Your task to perform on an android device: uninstall "Microsoft Outlook" Image 0: 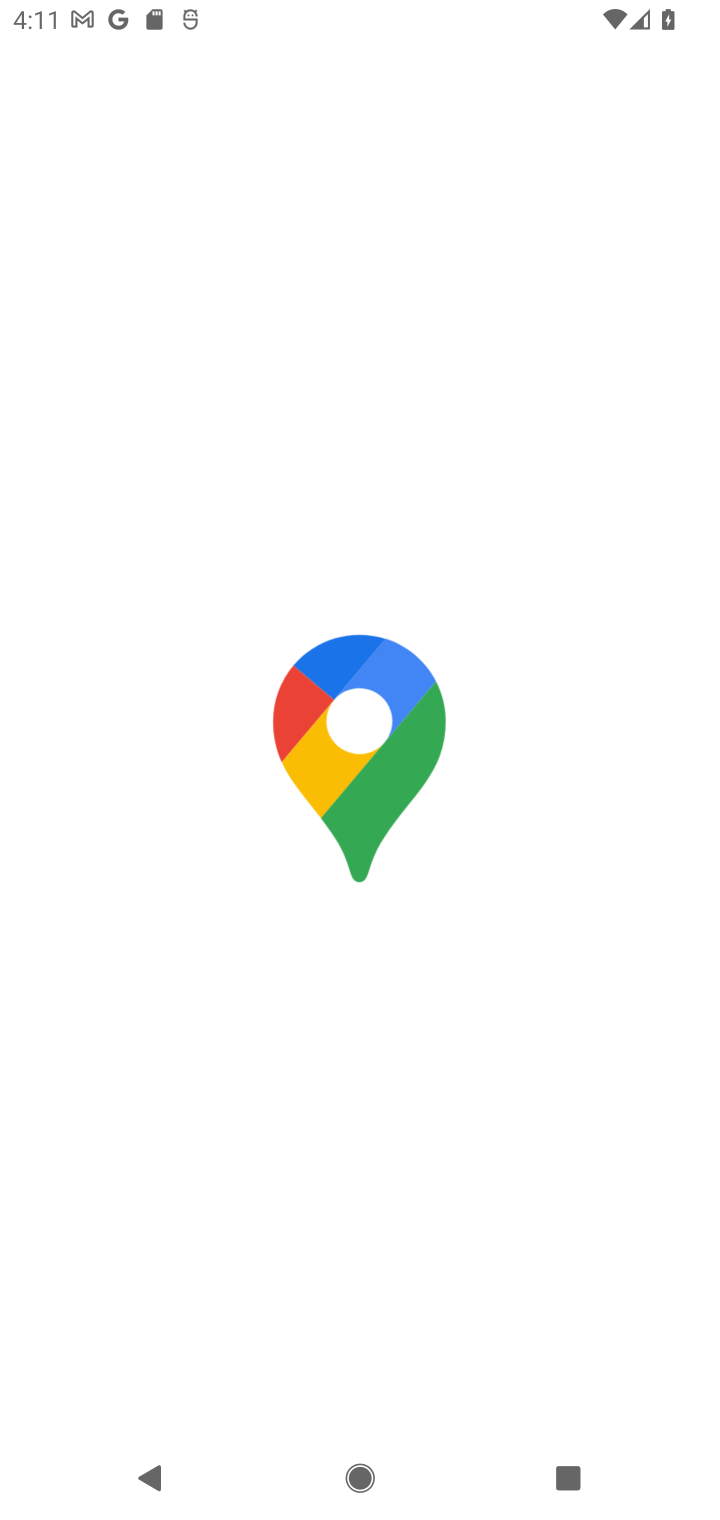
Step 0: press home button
Your task to perform on an android device: uninstall "Microsoft Outlook" Image 1: 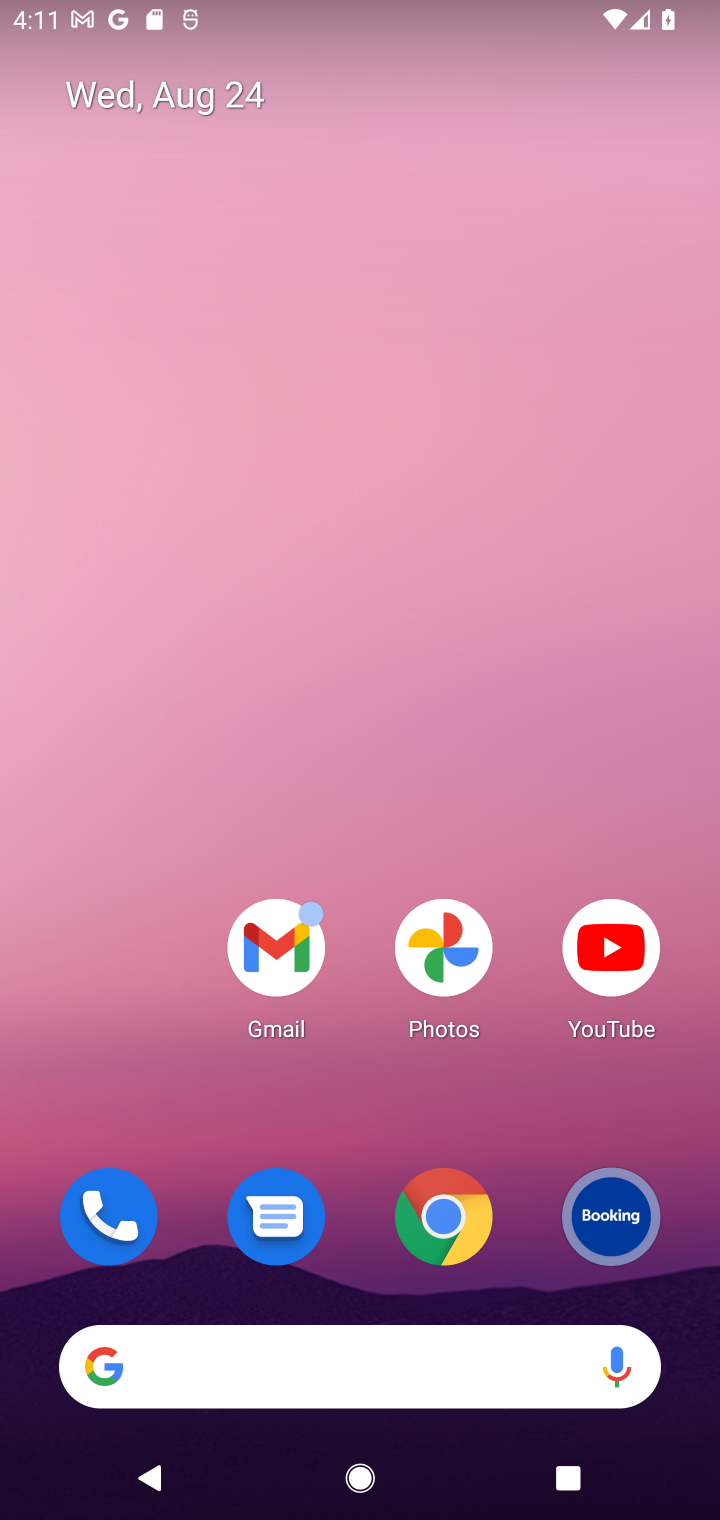
Step 1: drag from (357, 869) to (357, 187)
Your task to perform on an android device: uninstall "Microsoft Outlook" Image 2: 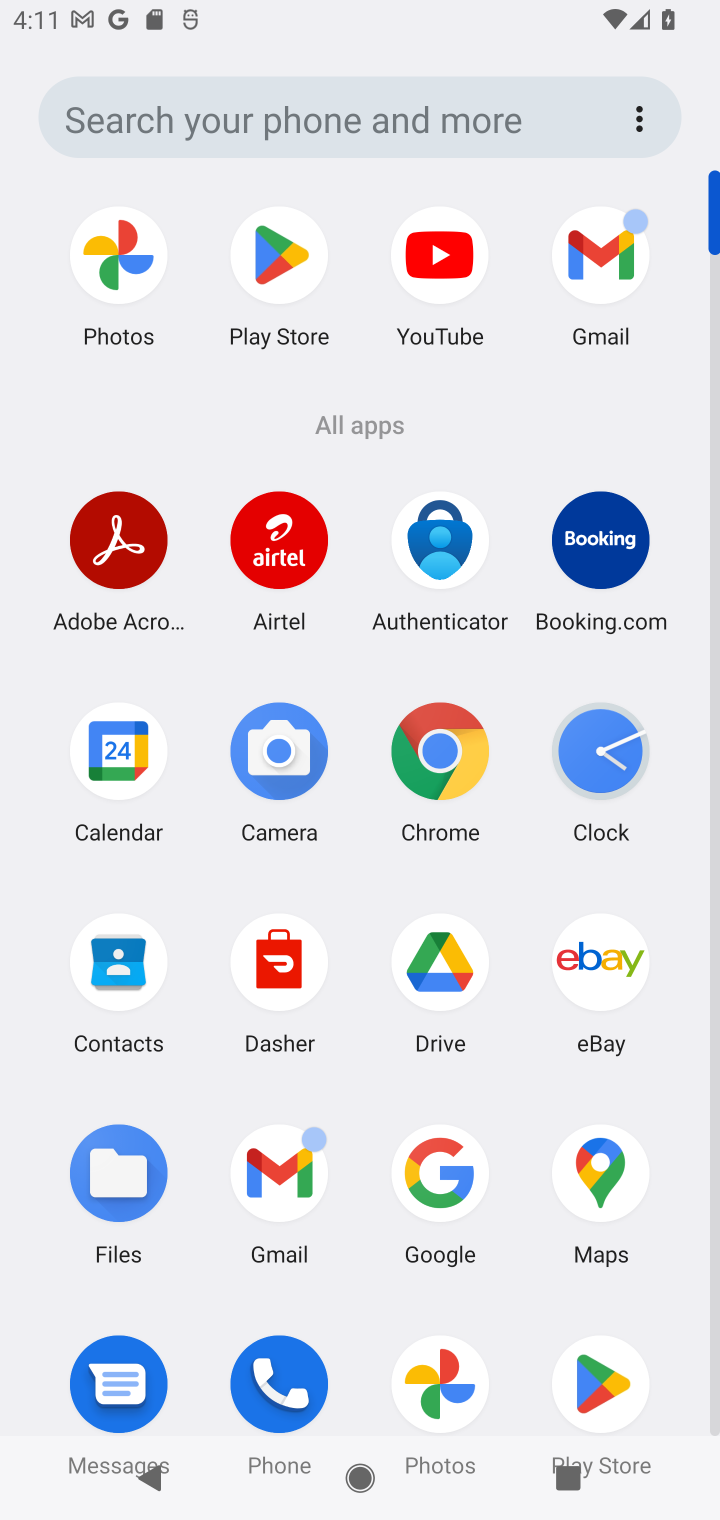
Step 2: click (269, 278)
Your task to perform on an android device: uninstall "Microsoft Outlook" Image 3: 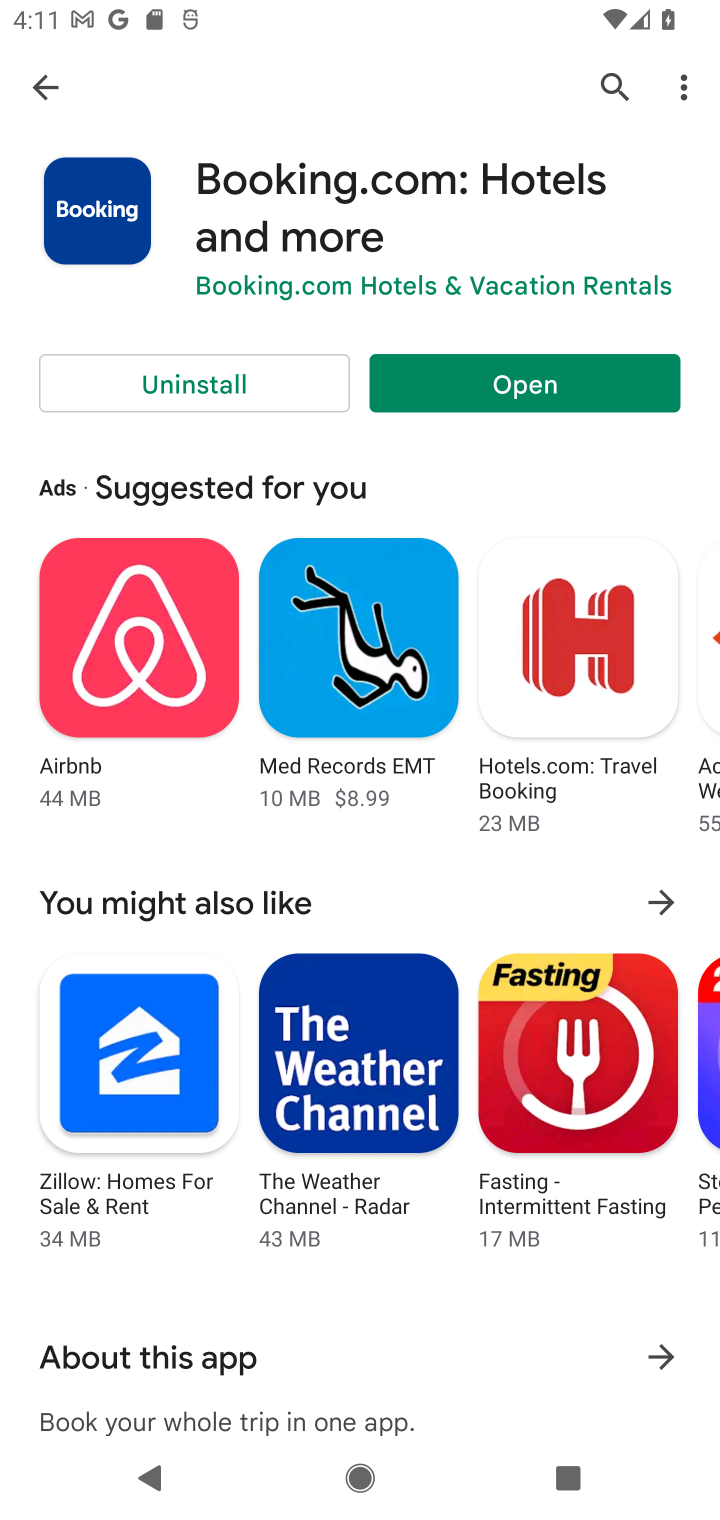
Step 3: click (601, 79)
Your task to perform on an android device: uninstall "Microsoft Outlook" Image 4: 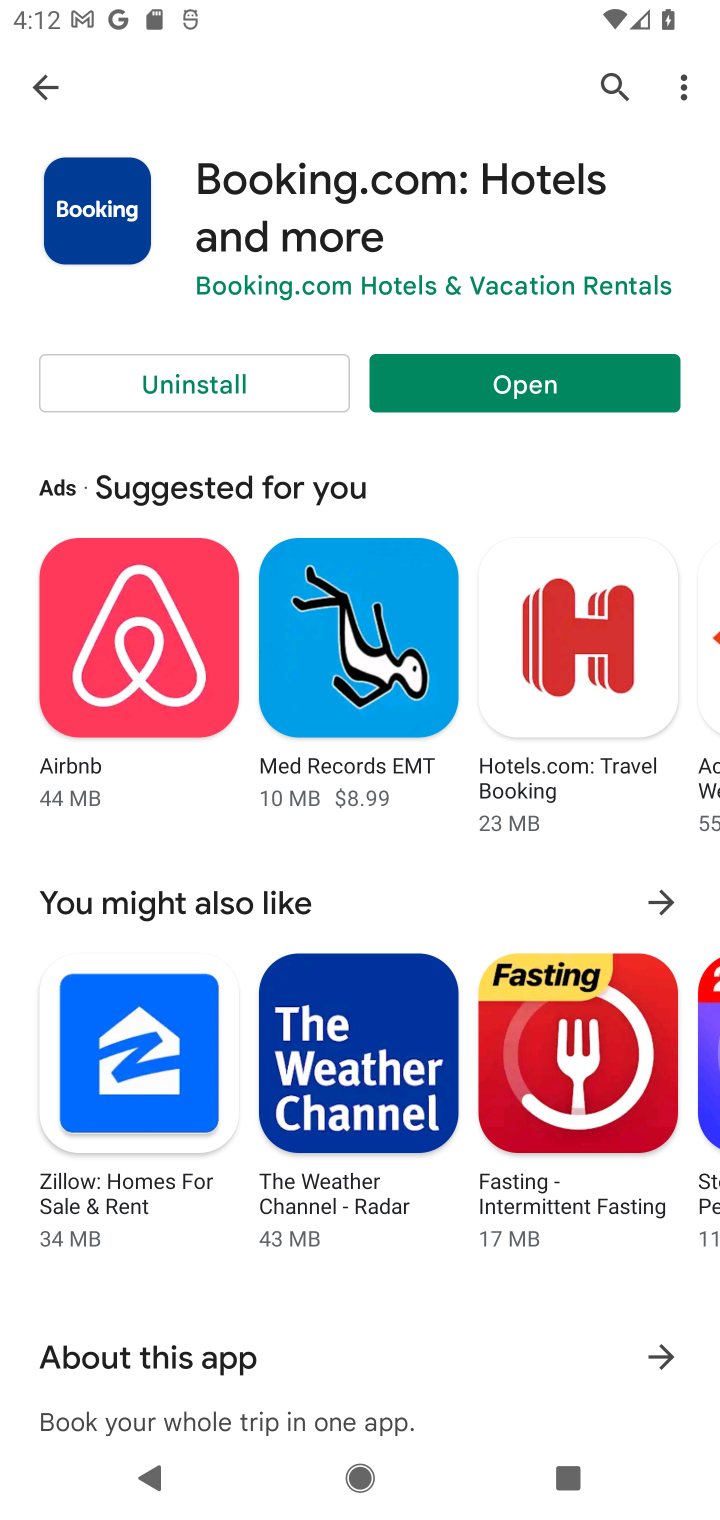
Step 4: click (191, 386)
Your task to perform on an android device: uninstall "Microsoft Outlook" Image 5: 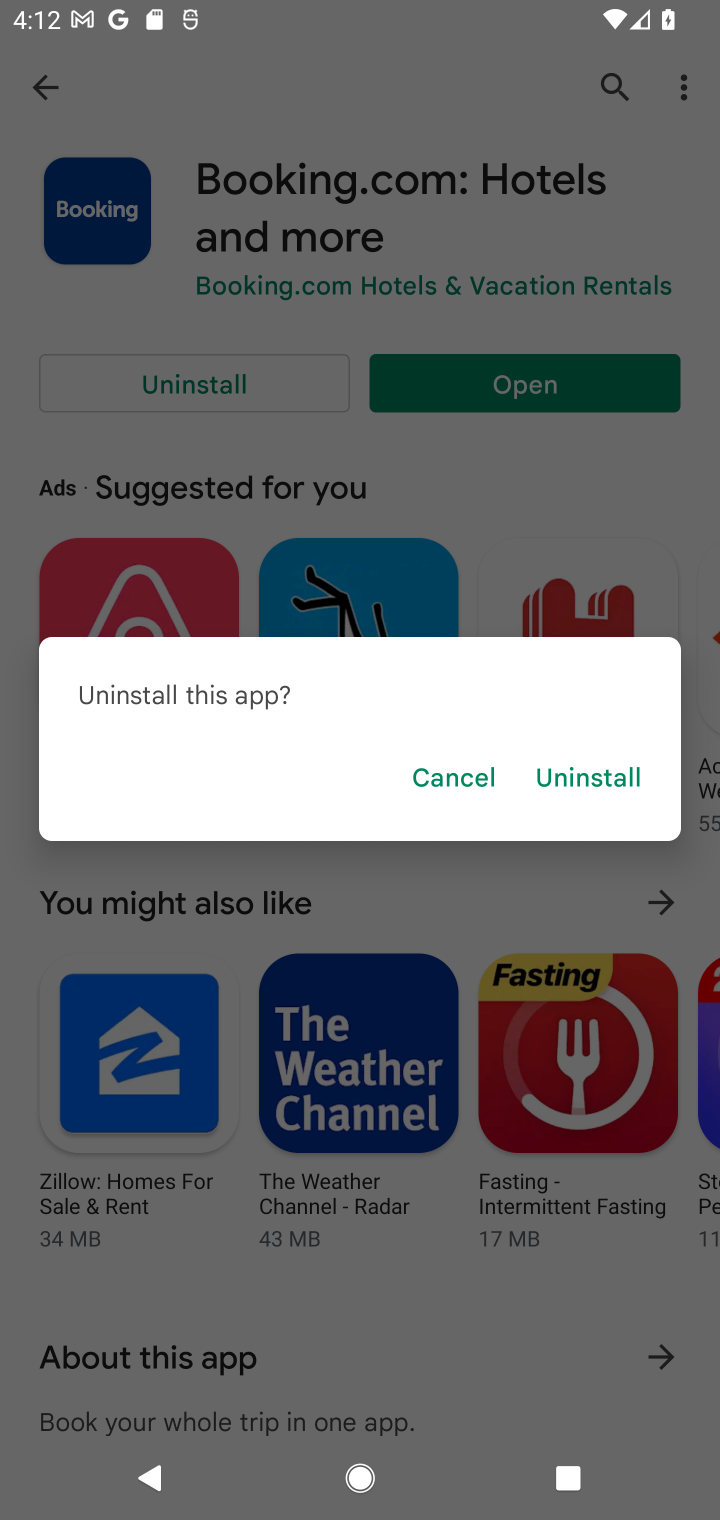
Step 5: click (593, 766)
Your task to perform on an android device: uninstall "Microsoft Outlook" Image 6: 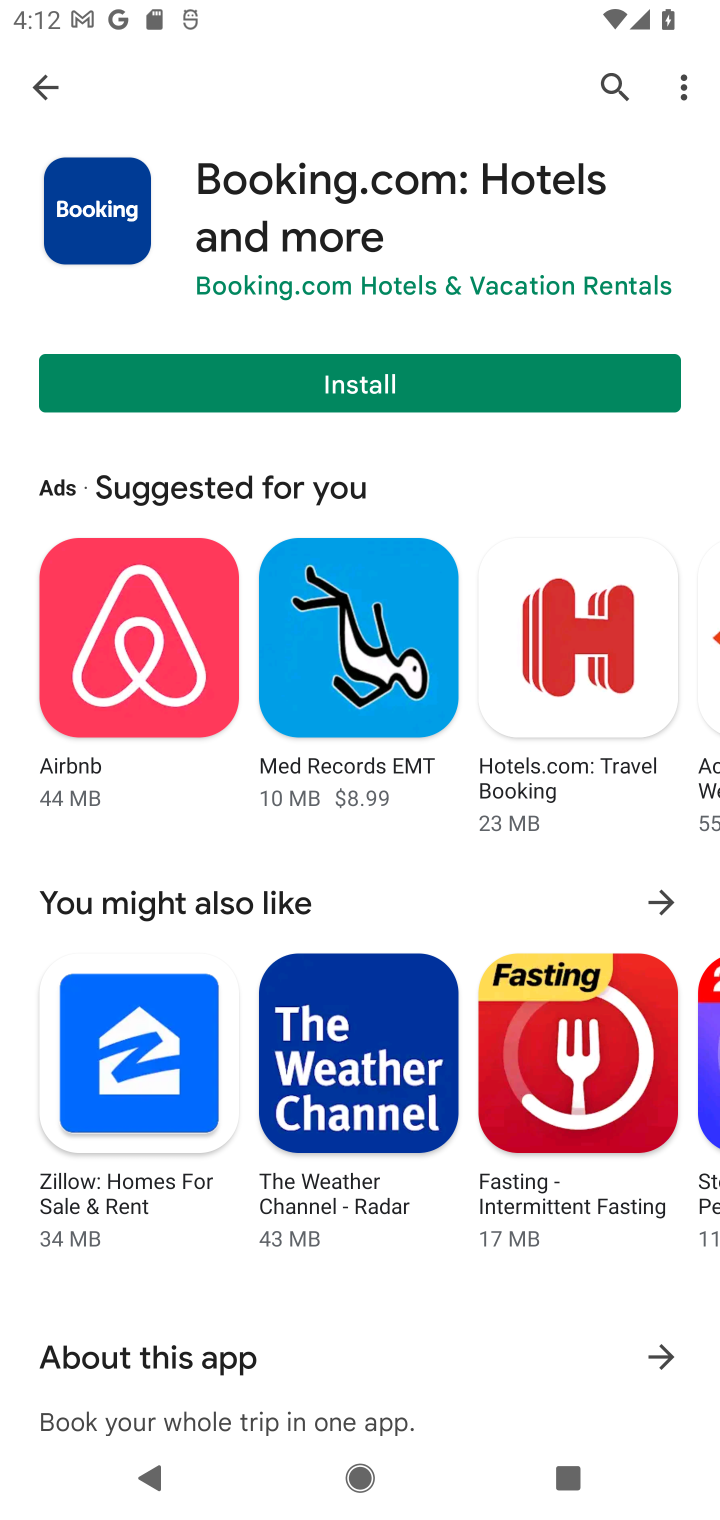
Step 6: task complete